Your task to perform on an android device: See recent photos Image 0: 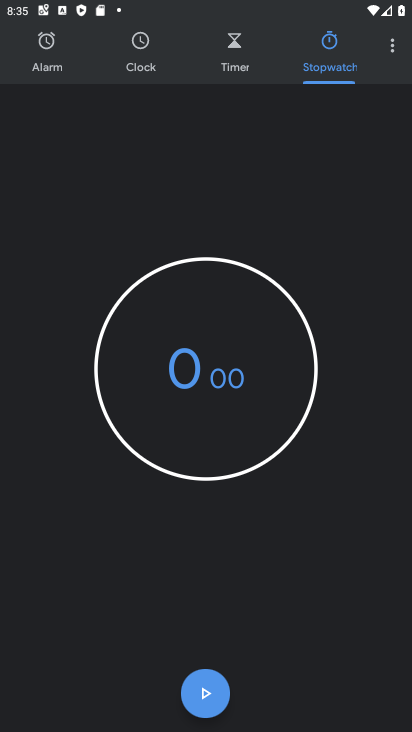
Step 0: press home button
Your task to perform on an android device: See recent photos Image 1: 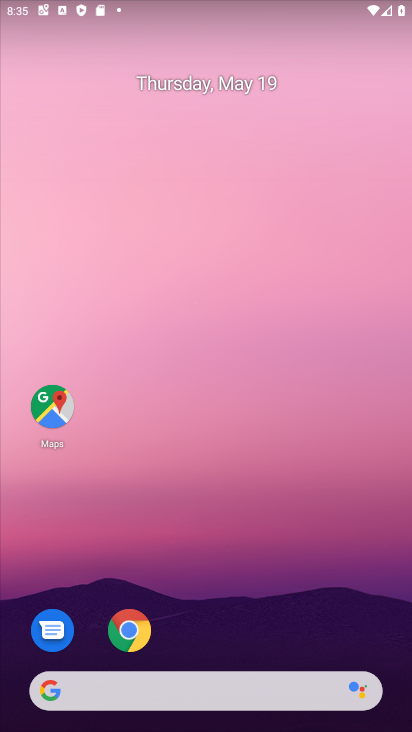
Step 1: drag from (376, 622) to (327, 65)
Your task to perform on an android device: See recent photos Image 2: 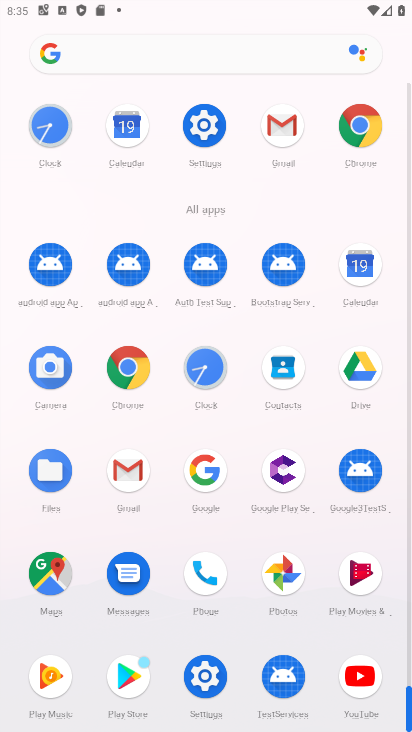
Step 2: click (283, 572)
Your task to perform on an android device: See recent photos Image 3: 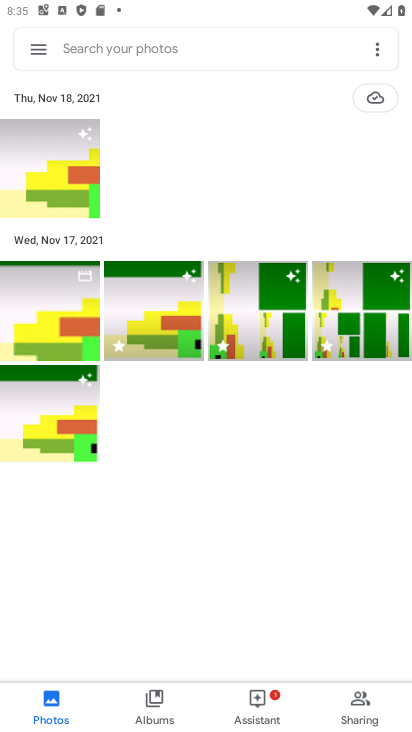
Step 3: task complete